Your task to perform on an android device: check storage Image 0: 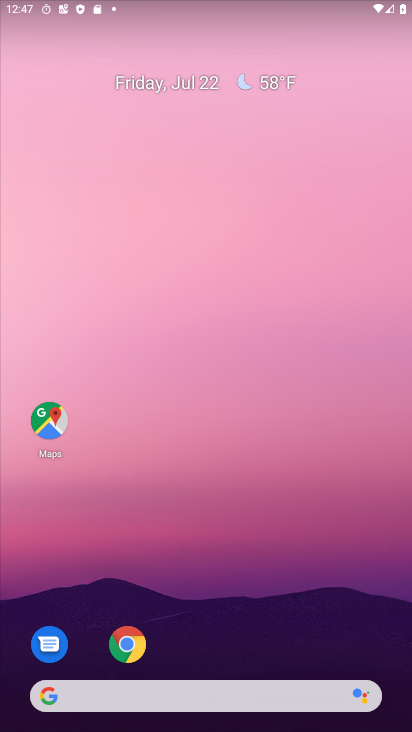
Step 0: drag from (166, 642) to (236, 214)
Your task to perform on an android device: check storage Image 1: 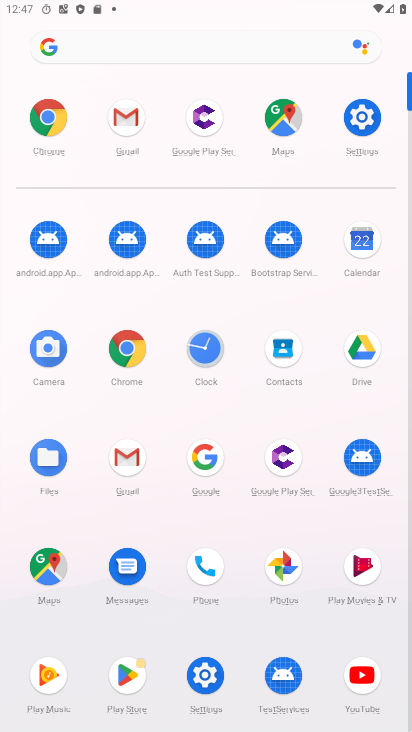
Step 1: click (211, 669)
Your task to perform on an android device: check storage Image 2: 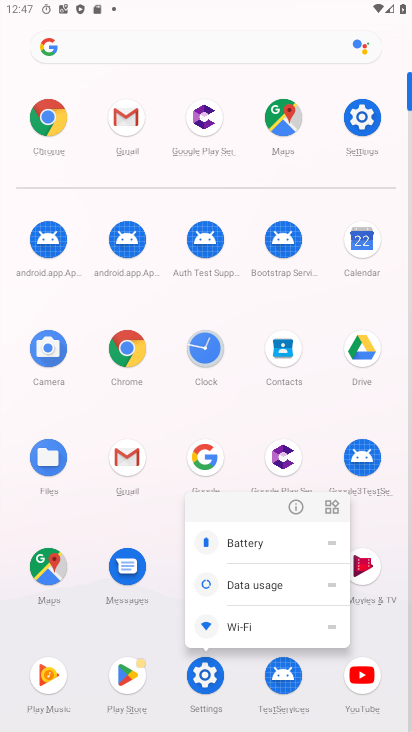
Step 2: click (295, 510)
Your task to perform on an android device: check storage Image 3: 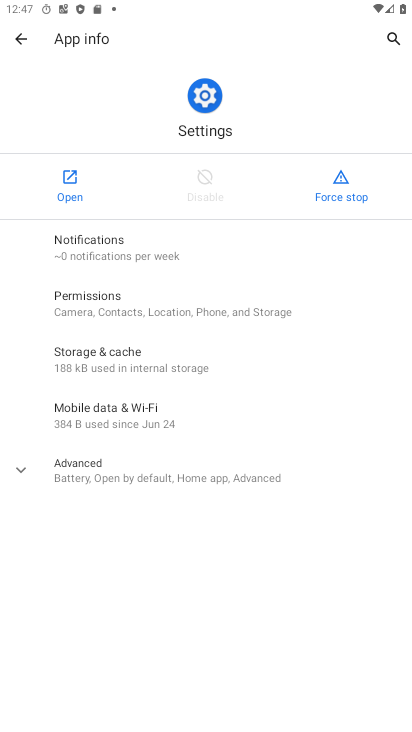
Step 3: click (73, 186)
Your task to perform on an android device: check storage Image 4: 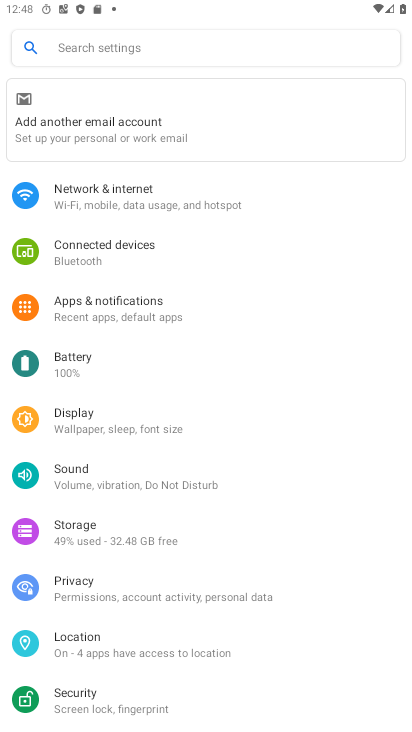
Step 4: drag from (217, 372) to (239, 139)
Your task to perform on an android device: check storage Image 5: 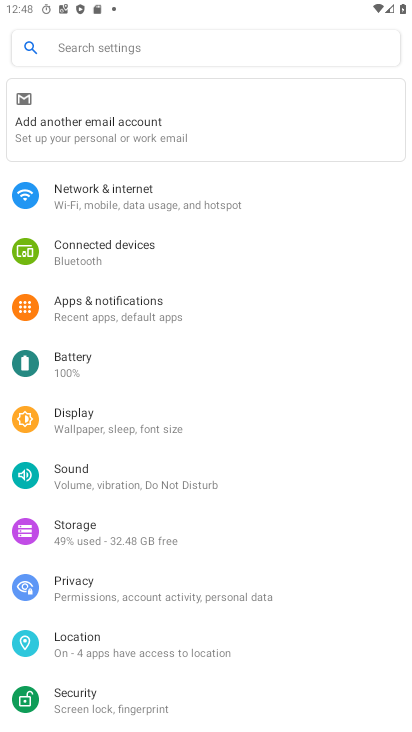
Step 5: click (102, 531)
Your task to perform on an android device: check storage Image 6: 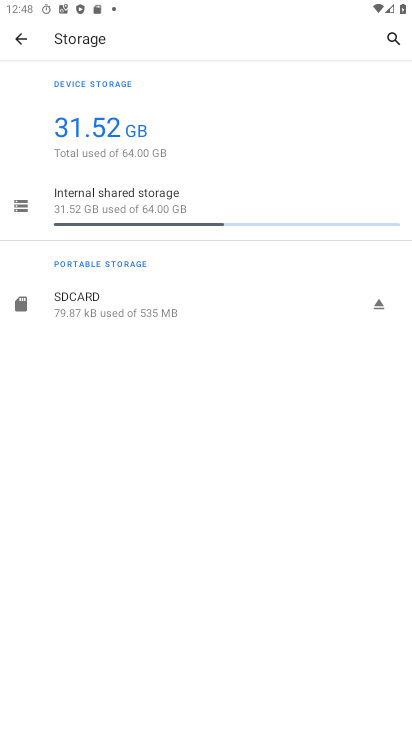
Step 6: task complete